Your task to perform on an android device: clear all cookies in the chrome app Image 0: 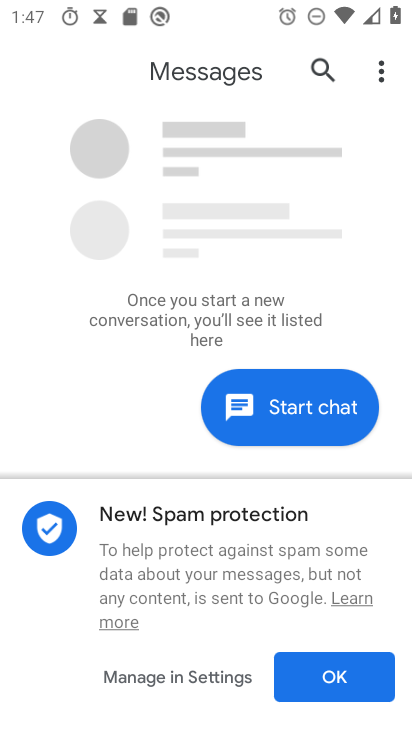
Step 0: press home button
Your task to perform on an android device: clear all cookies in the chrome app Image 1: 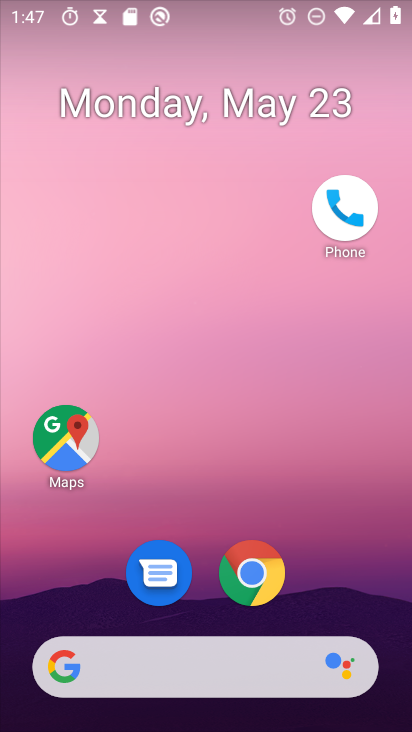
Step 1: click (240, 582)
Your task to perform on an android device: clear all cookies in the chrome app Image 2: 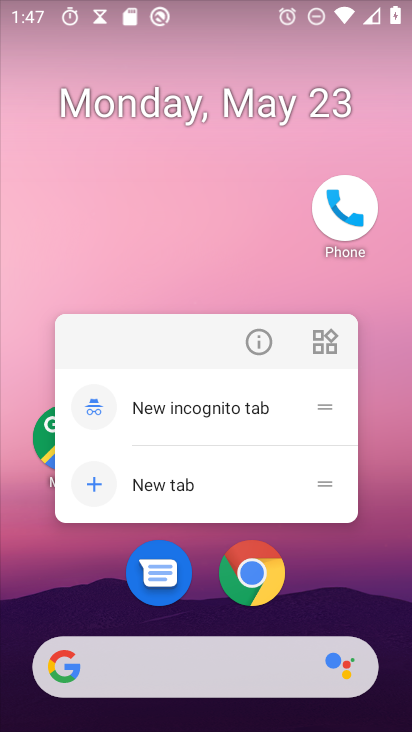
Step 2: click (256, 576)
Your task to perform on an android device: clear all cookies in the chrome app Image 3: 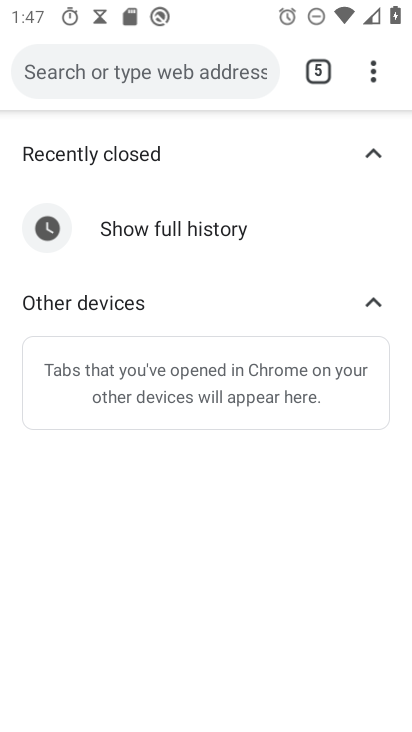
Step 3: drag from (370, 76) to (193, 584)
Your task to perform on an android device: clear all cookies in the chrome app Image 4: 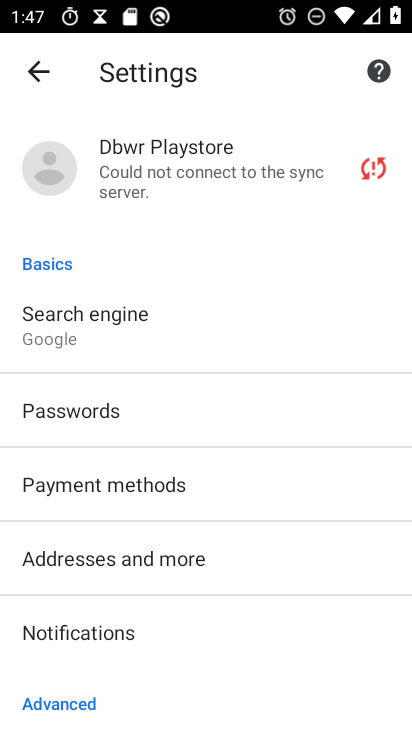
Step 4: drag from (263, 516) to (353, 230)
Your task to perform on an android device: clear all cookies in the chrome app Image 5: 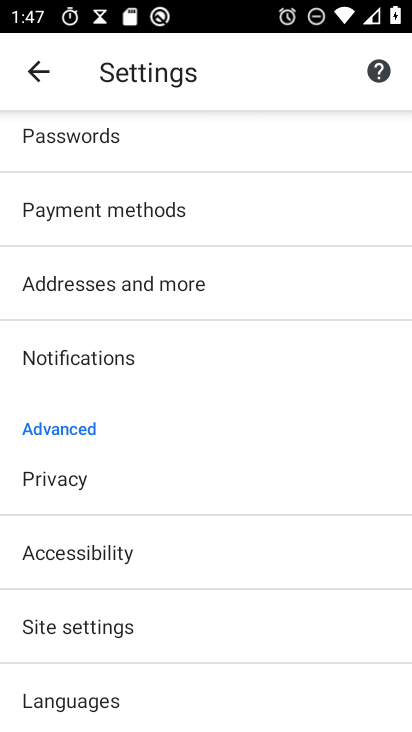
Step 5: click (68, 482)
Your task to perform on an android device: clear all cookies in the chrome app Image 6: 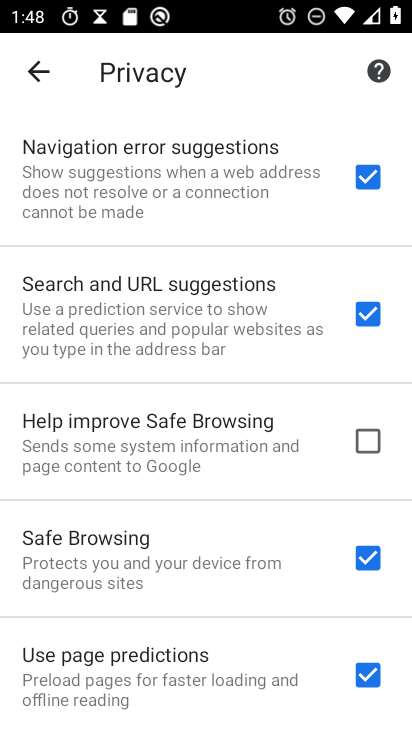
Step 6: drag from (172, 664) to (256, 365)
Your task to perform on an android device: clear all cookies in the chrome app Image 7: 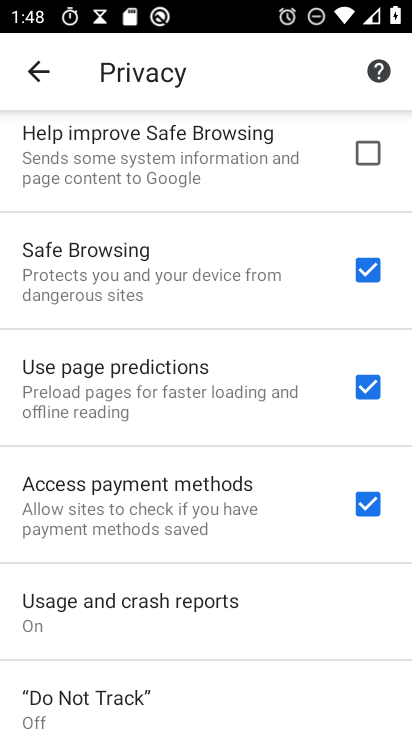
Step 7: drag from (328, 329) to (384, 182)
Your task to perform on an android device: clear all cookies in the chrome app Image 8: 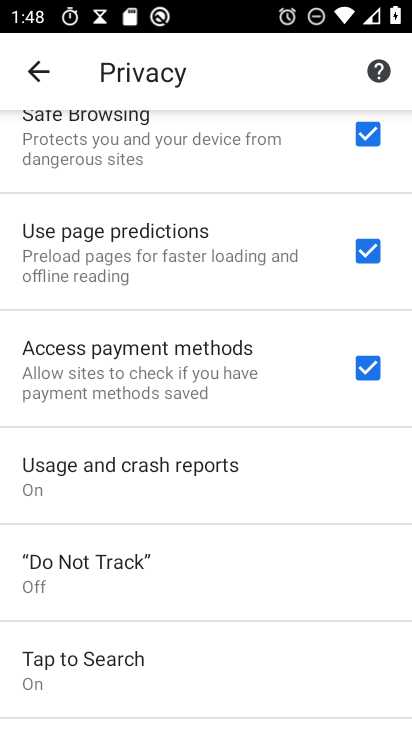
Step 8: drag from (187, 670) to (364, 138)
Your task to perform on an android device: clear all cookies in the chrome app Image 9: 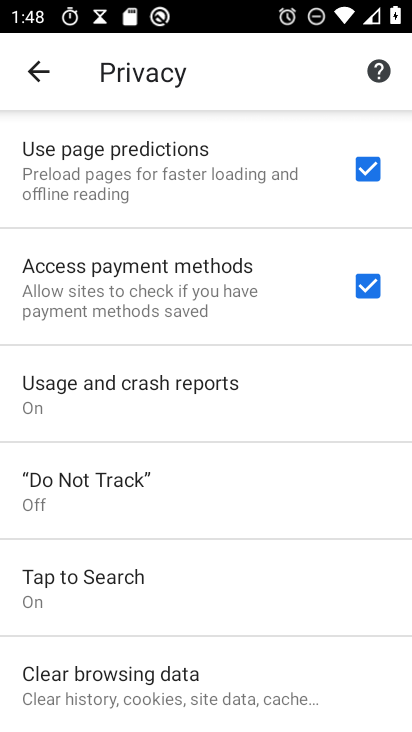
Step 9: click (206, 695)
Your task to perform on an android device: clear all cookies in the chrome app Image 10: 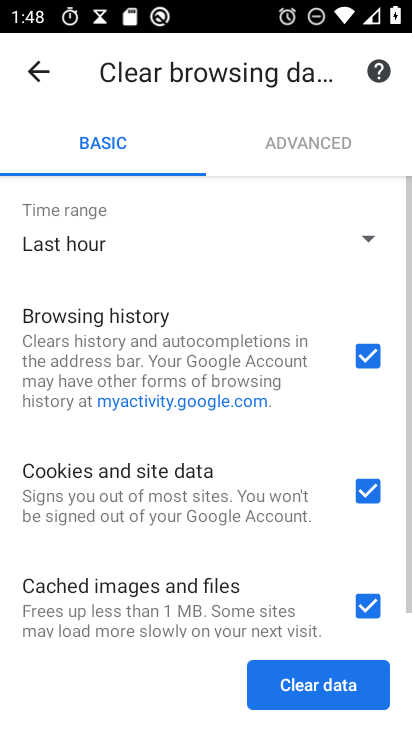
Step 10: click (322, 684)
Your task to perform on an android device: clear all cookies in the chrome app Image 11: 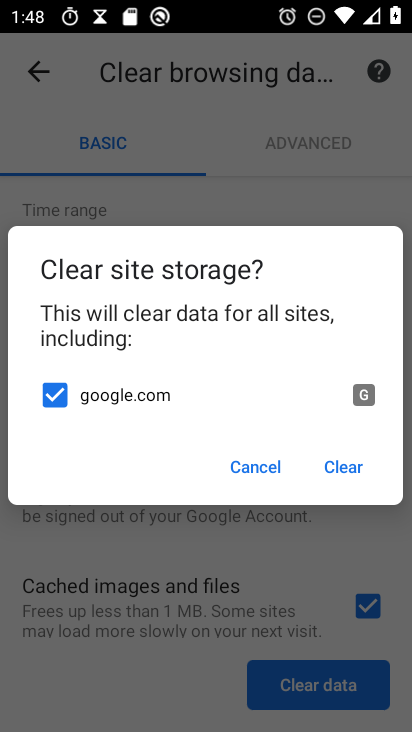
Step 11: click (337, 465)
Your task to perform on an android device: clear all cookies in the chrome app Image 12: 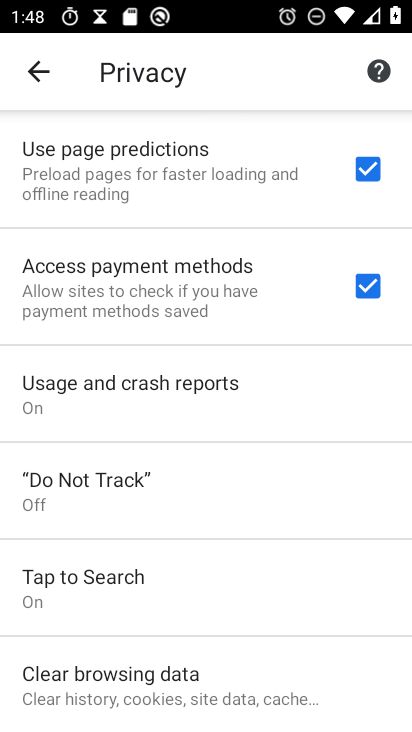
Step 12: task complete